Your task to perform on an android device: turn on improve location accuracy Image 0: 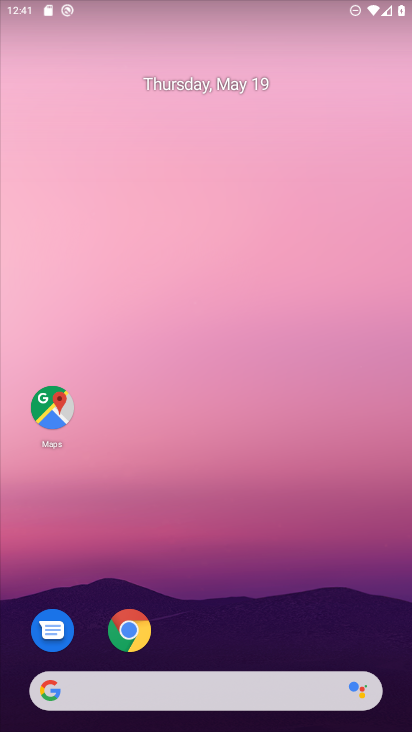
Step 0: drag from (248, 426) to (285, 45)
Your task to perform on an android device: turn on improve location accuracy Image 1: 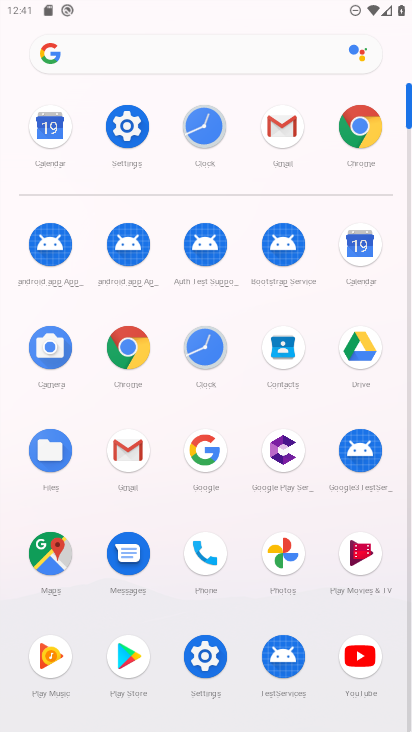
Step 1: click (195, 666)
Your task to perform on an android device: turn on improve location accuracy Image 2: 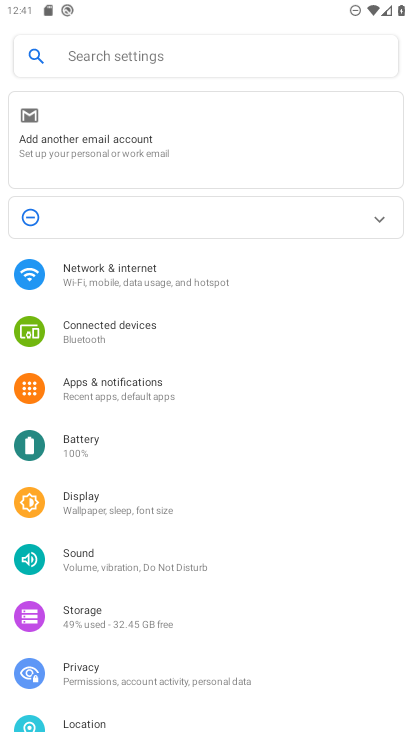
Step 2: drag from (211, 565) to (234, 194)
Your task to perform on an android device: turn on improve location accuracy Image 3: 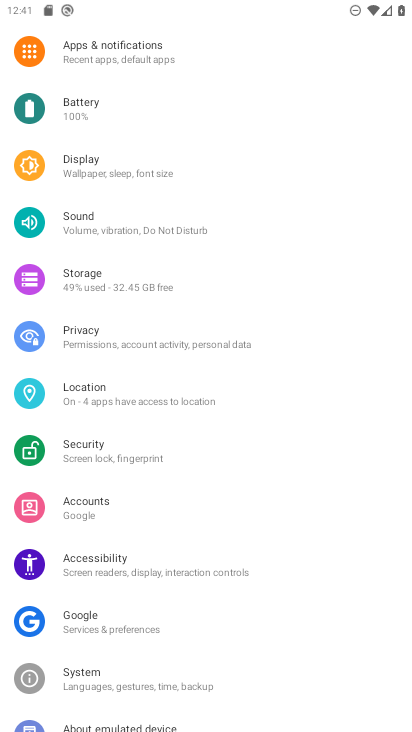
Step 3: drag from (210, 644) to (242, 232)
Your task to perform on an android device: turn on improve location accuracy Image 4: 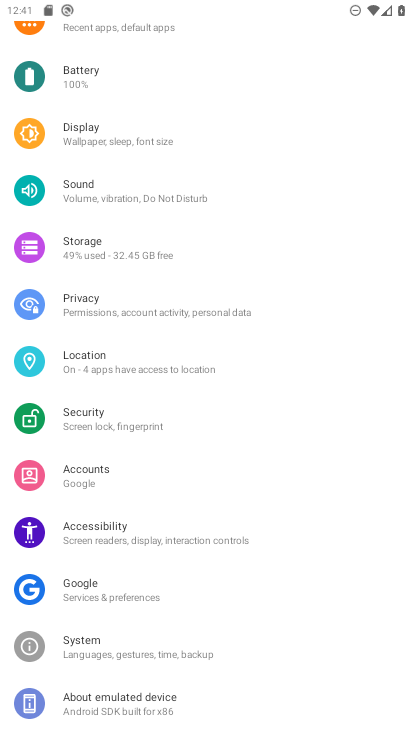
Step 4: click (123, 361)
Your task to perform on an android device: turn on improve location accuracy Image 5: 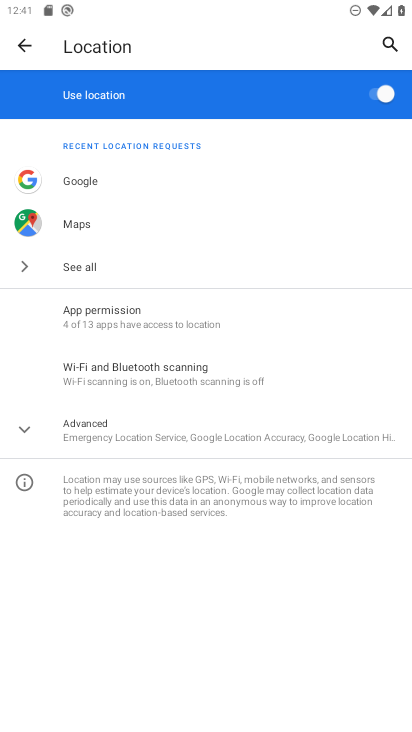
Step 5: click (112, 430)
Your task to perform on an android device: turn on improve location accuracy Image 6: 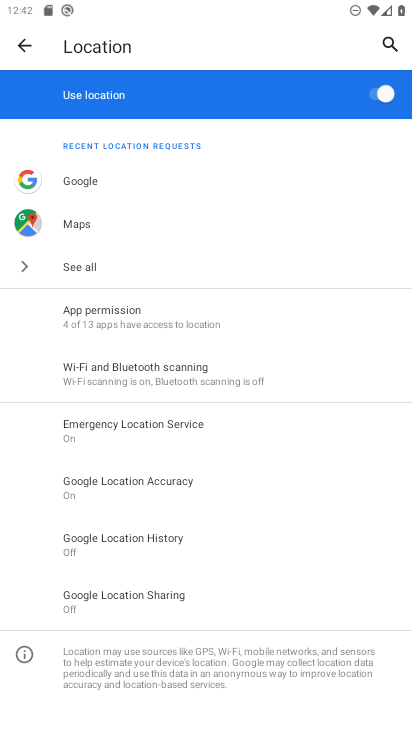
Step 6: click (188, 491)
Your task to perform on an android device: turn on improve location accuracy Image 7: 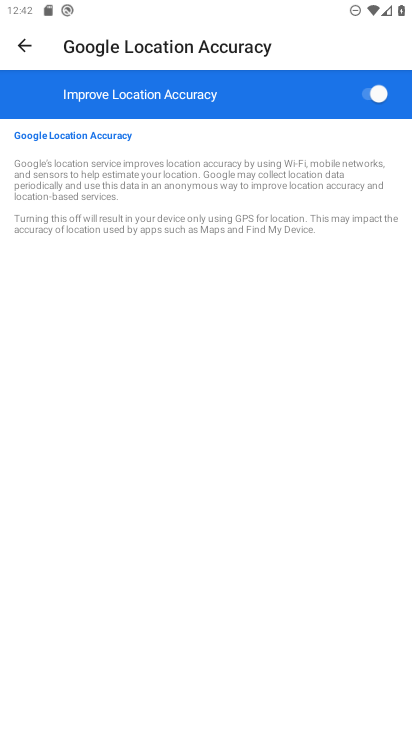
Step 7: task complete